Your task to perform on an android device: turn off picture-in-picture Image 0: 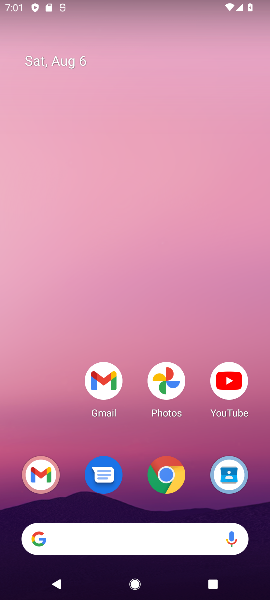
Step 0: click (158, 473)
Your task to perform on an android device: turn off picture-in-picture Image 1: 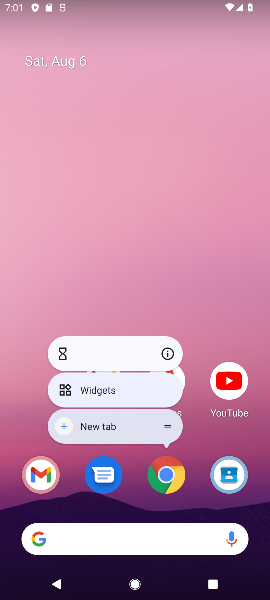
Step 1: click (166, 354)
Your task to perform on an android device: turn off picture-in-picture Image 2: 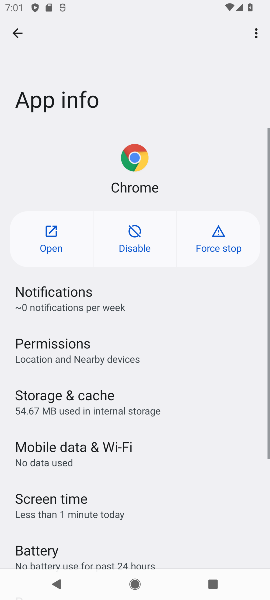
Step 2: drag from (144, 488) to (159, 142)
Your task to perform on an android device: turn off picture-in-picture Image 3: 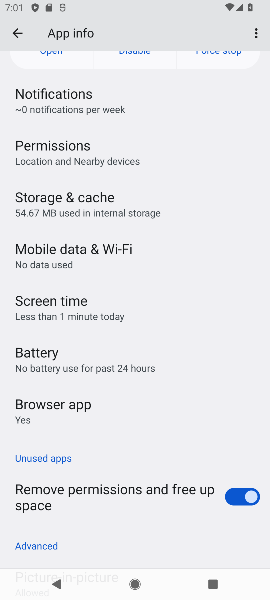
Step 3: drag from (124, 474) to (153, 183)
Your task to perform on an android device: turn off picture-in-picture Image 4: 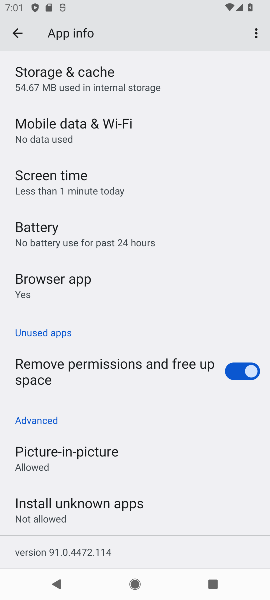
Step 4: click (85, 457)
Your task to perform on an android device: turn off picture-in-picture Image 5: 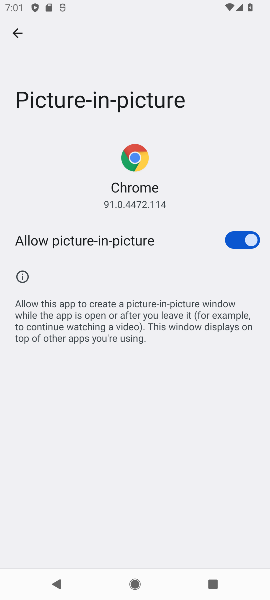
Step 5: click (236, 235)
Your task to perform on an android device: turn off picture-in-picture Image 6: 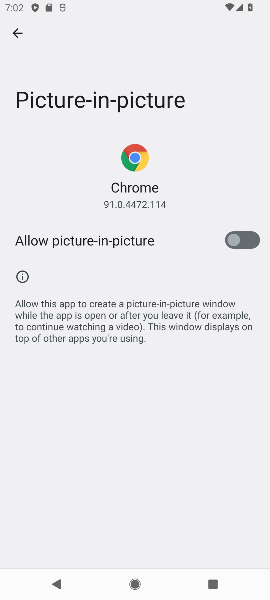
Step 6: task complete